Your task to perform on an android device: empty trash in the gmail app Image 0: 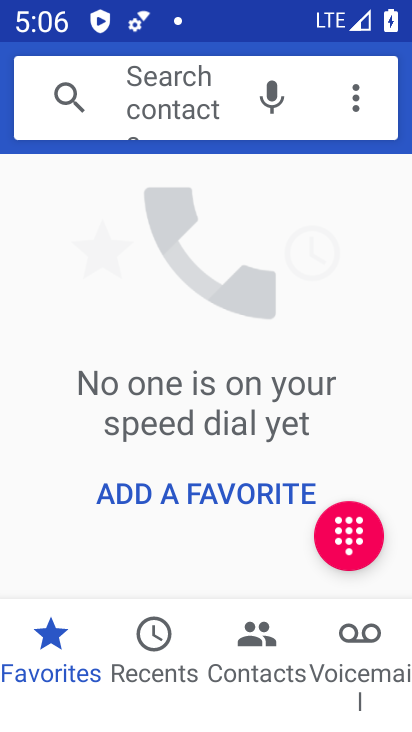
Step 0: press home button
Your task to perform on an android device: empty trash in the gmail app Image 1: 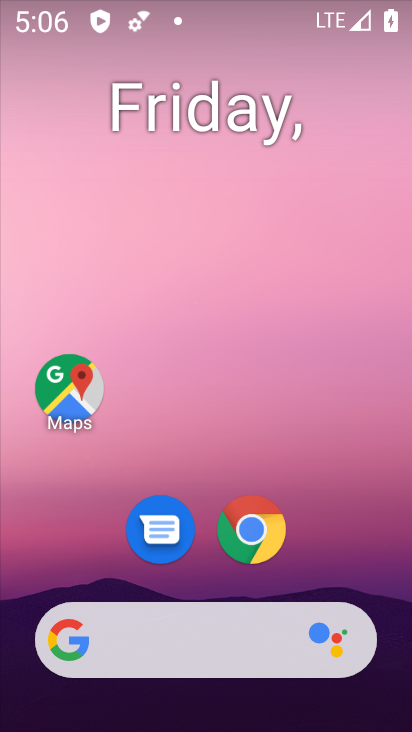
Step 1: drag from (335, 552) to (281, 3)
Your task to perform on an android device: empty trash in the gmail app Image 2: 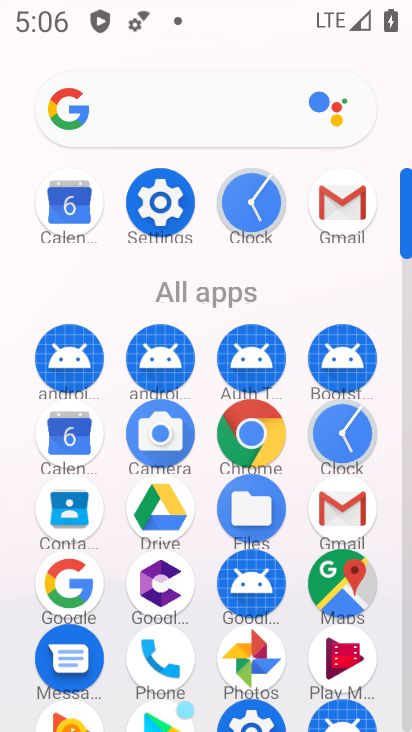
Step 2: click (355, 199)
Your task to perform on an android device: empty trash in the gmail app Image 3: 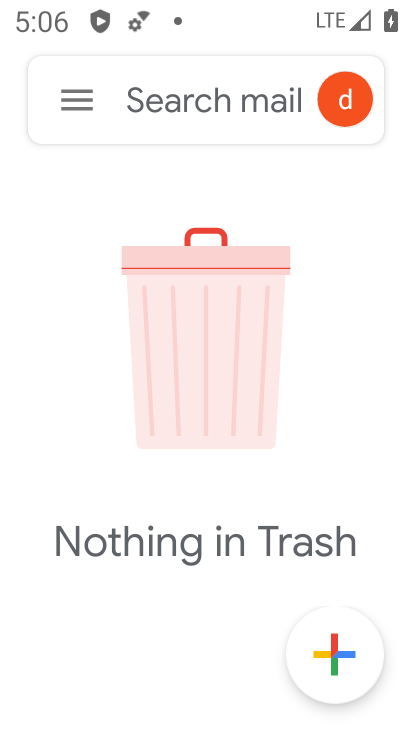
Step 3: click (74, 100)
Your task to perform on an android device: empty trash in the gmail app Image 4: 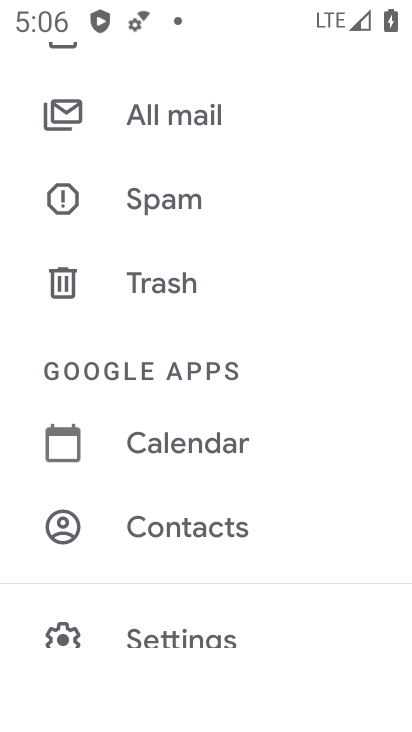
Step 4: click (181, 272)
Your task to perform on an android device: empty trash in the gmail app Image 5: 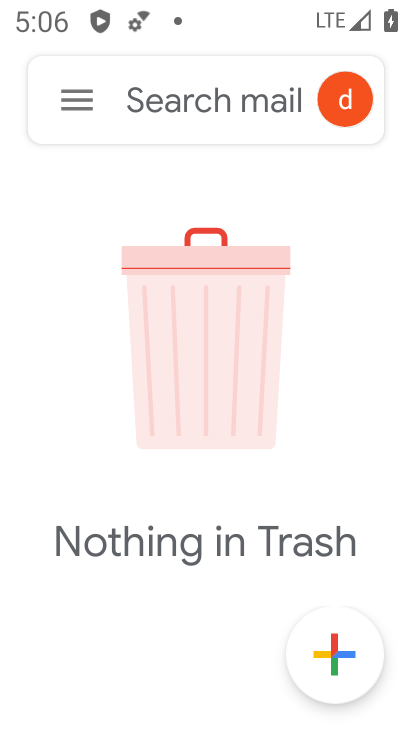
Step 5: task complete